Your task to perform on an android device: Set the phone to "Do not disturb". Image 0: 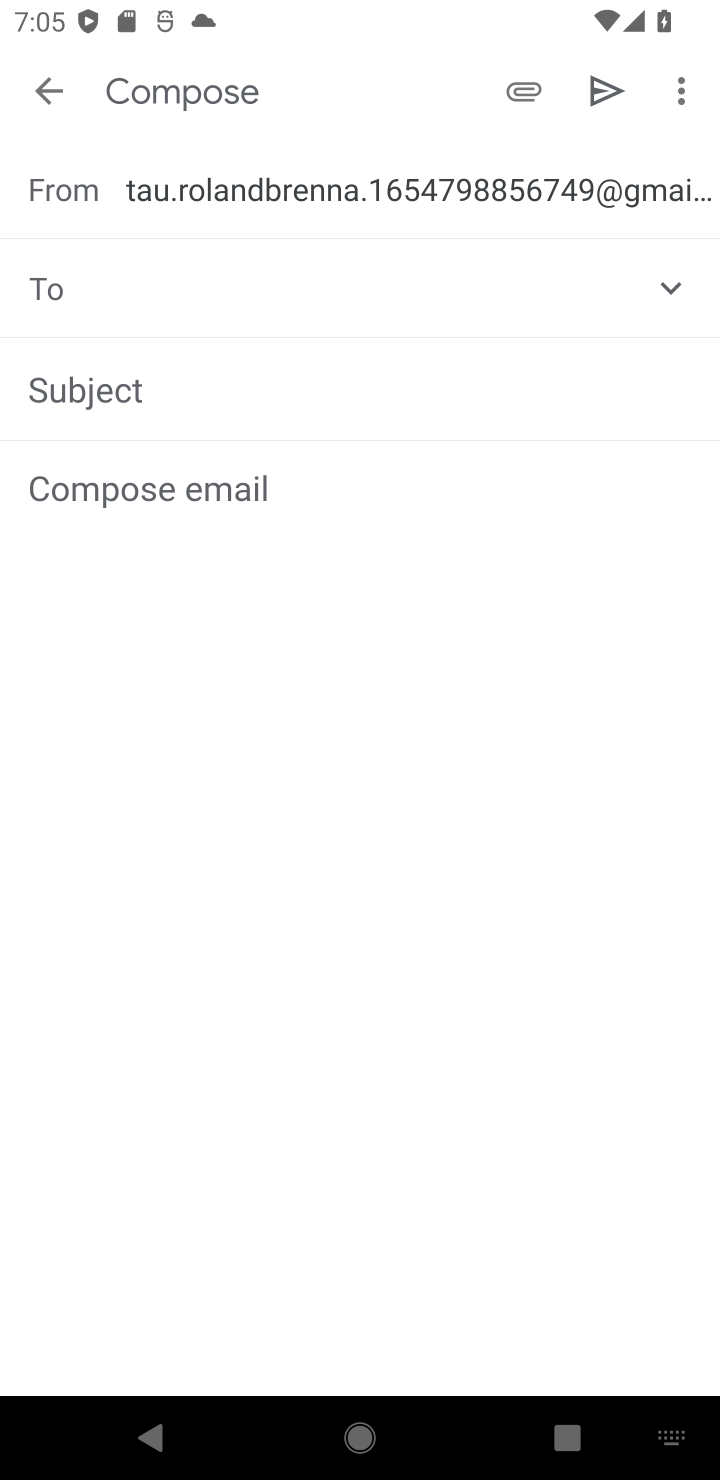
Step 0: press home button
Your task to perform on an android device: Set the phone to "Do not disturb". Image 1: 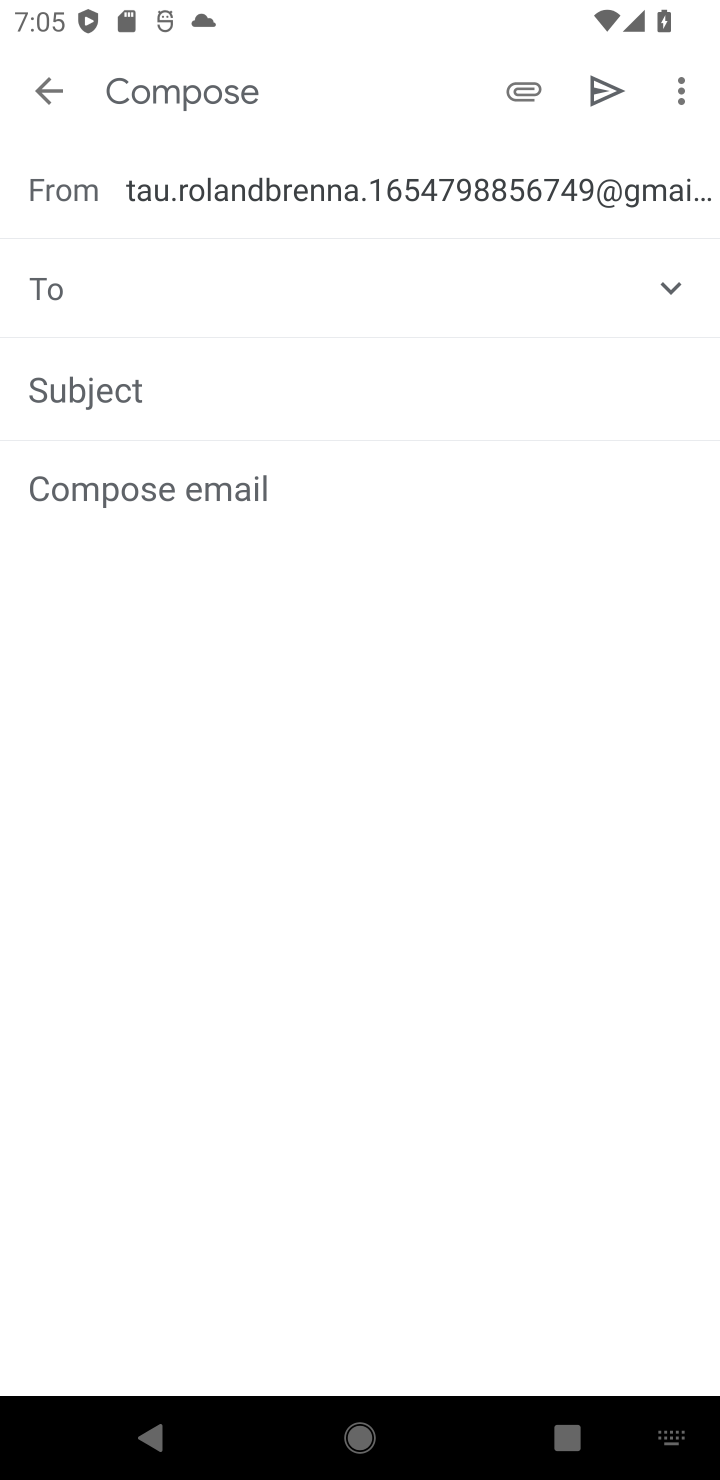
Step 1: press home button
Your task to perform on an android device: Set the phone to "Do not disturb". Image 2: 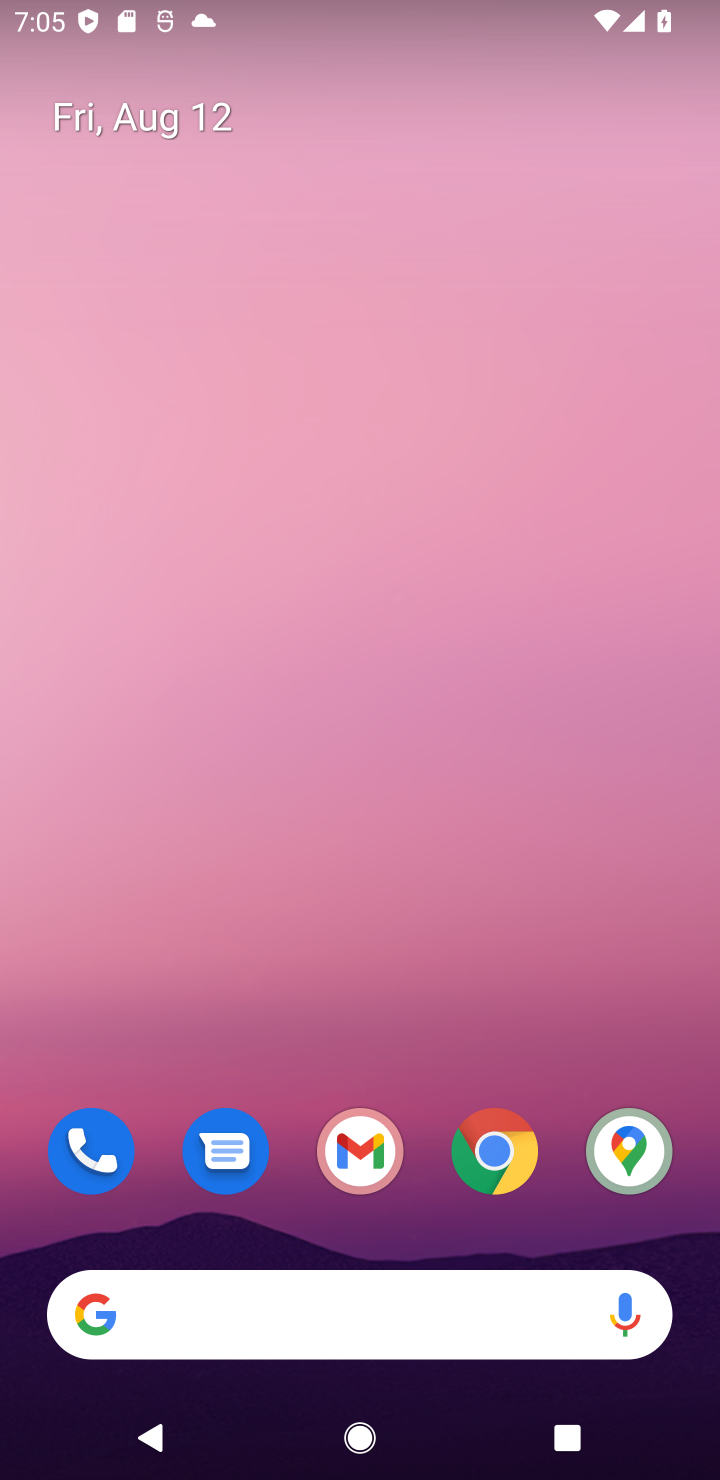
Step 2: drag from (308, 6) to (480, 906)
Your task to perform on an android device: Set the phone to "Do not disturb". Image 3: 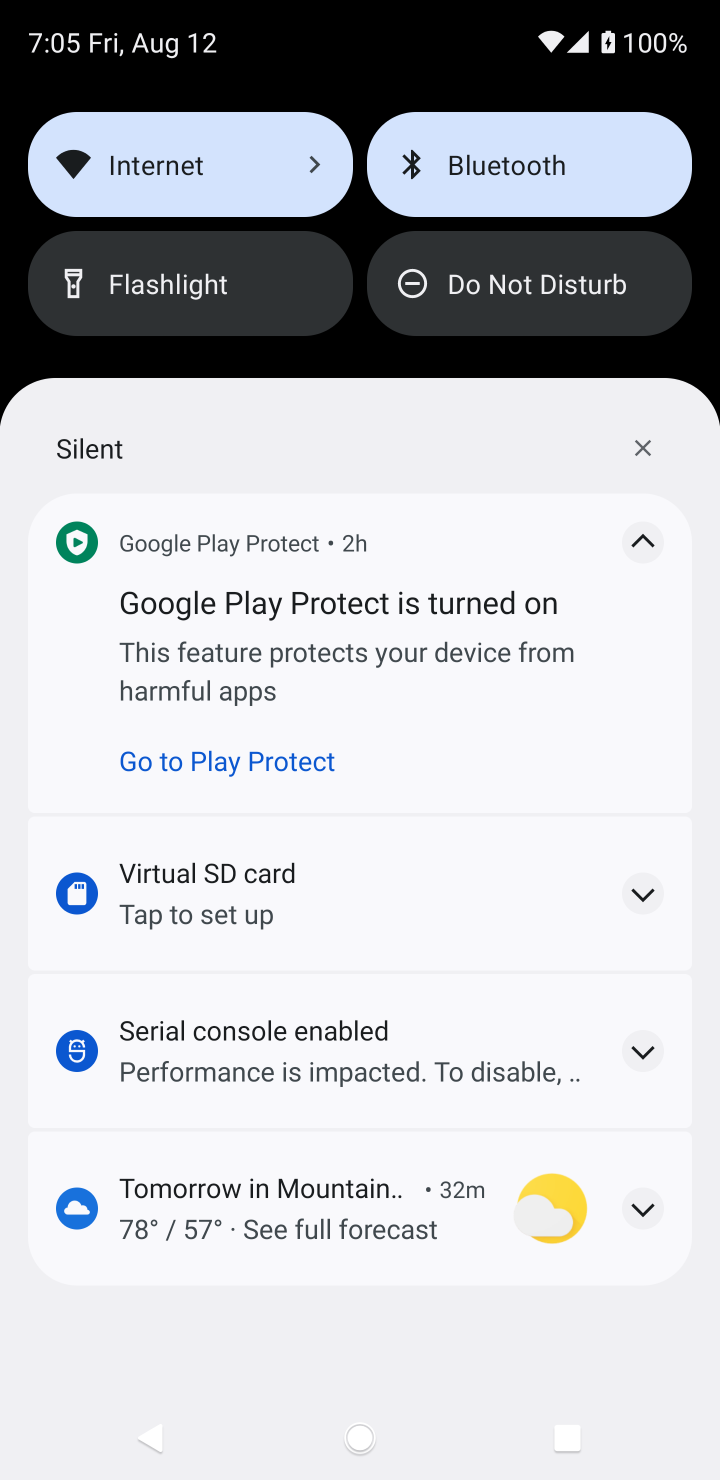
Step 3: click (529, 272)
Your task to perform on an android device: Set the phone to "Do not disturb". Image 4: 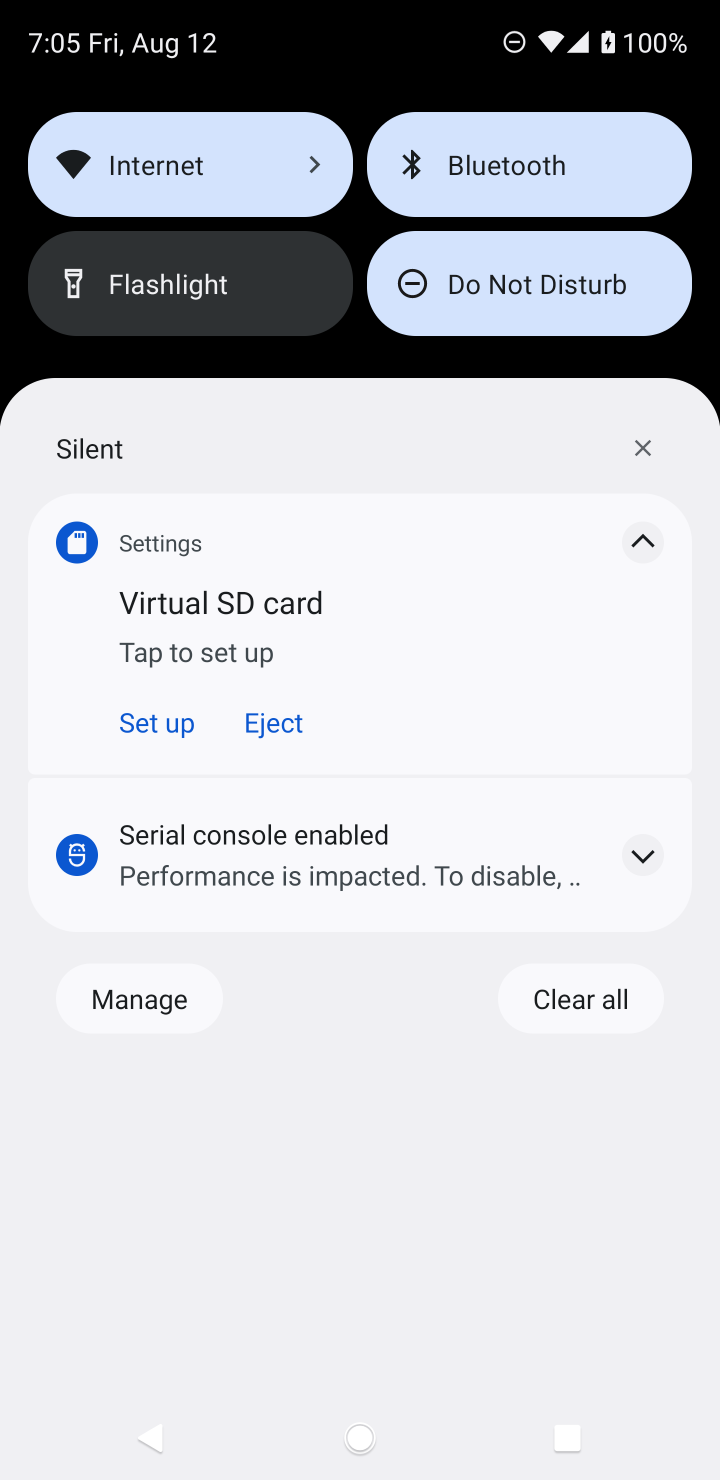
Step 4: task complete